Your task to perform on an android device: move an email to a new category in the gmail app Image 0: 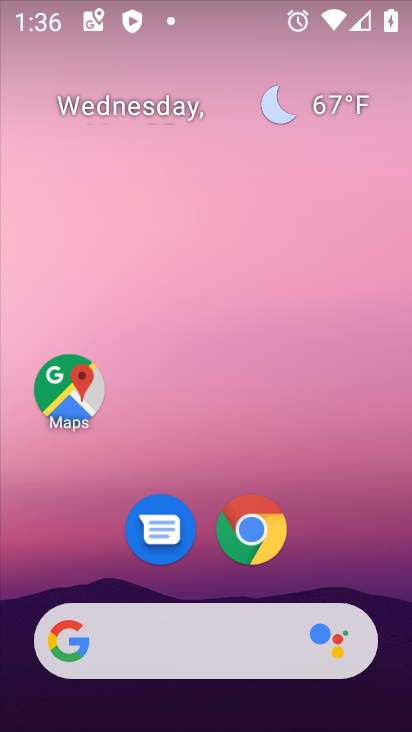
Step 0: drag from (328, 549) to (268, 194)
Your task to perform on an android device: move an email to a new category in the gmail app Image 1: 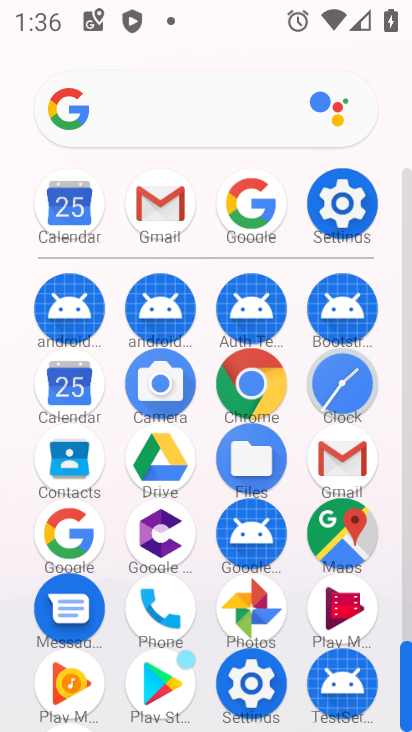
Step 1: click (161, 201)
Your task to perform on an android device: move an email to a new category in the gmail app Image 2: 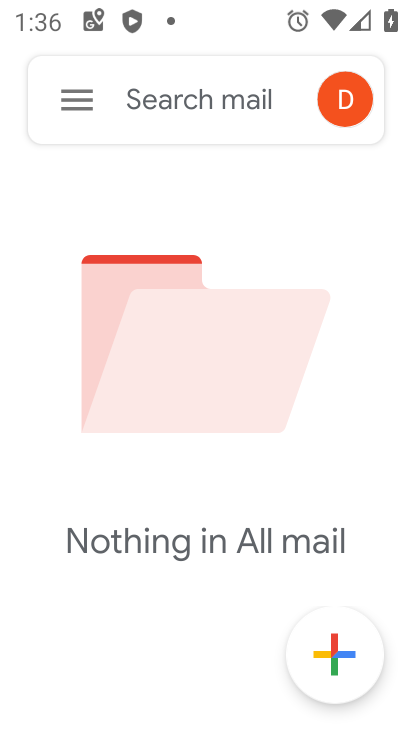
Step 2: click (70, 109)
Your task to perform on an android device: move an email to a new category in the gmail app Image 3: 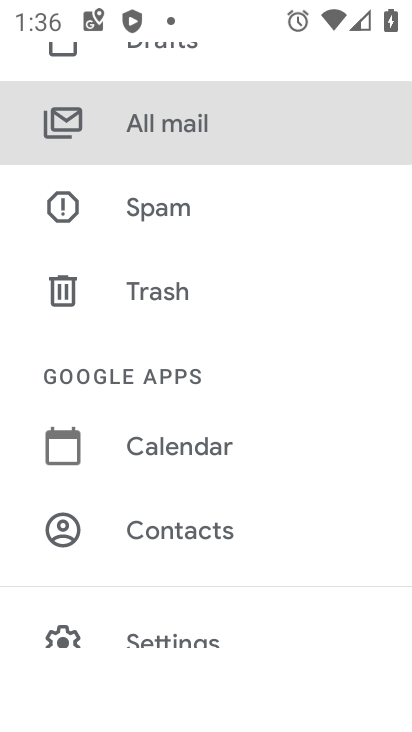
Step 3: drag from (163, 200) to (188, 380)
Your task to perform on an android device: move an email to a new category in the gmail app Image 4: 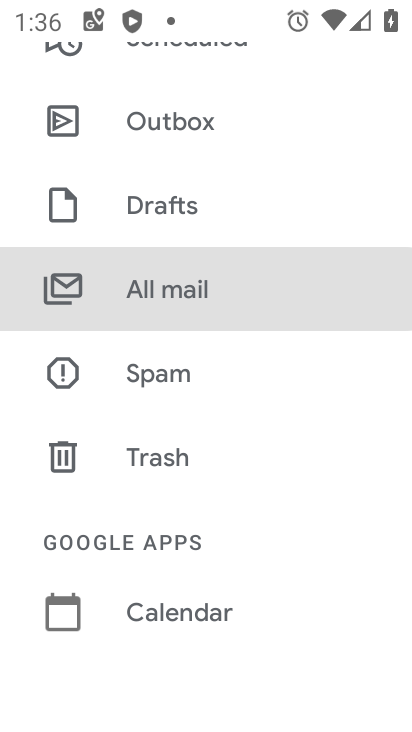
Step 4: click (178, 262)
Your task to perform on an android device: move an email to a new category in the gmail app Image 5: 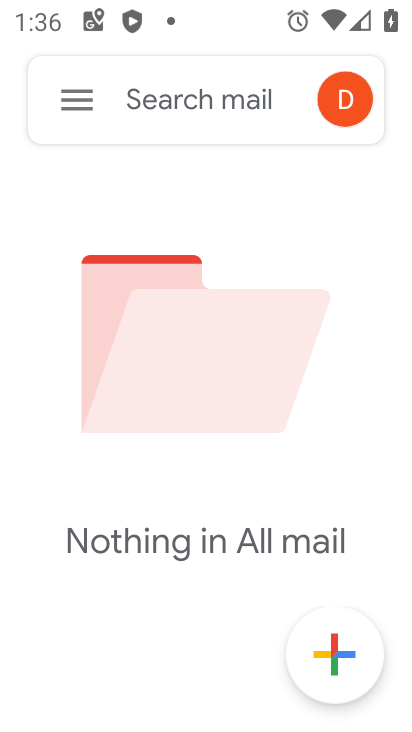
Step 5: click (67, 101)
Your task to perform on an android device: move an email to a new category in the gmail app Image 6: 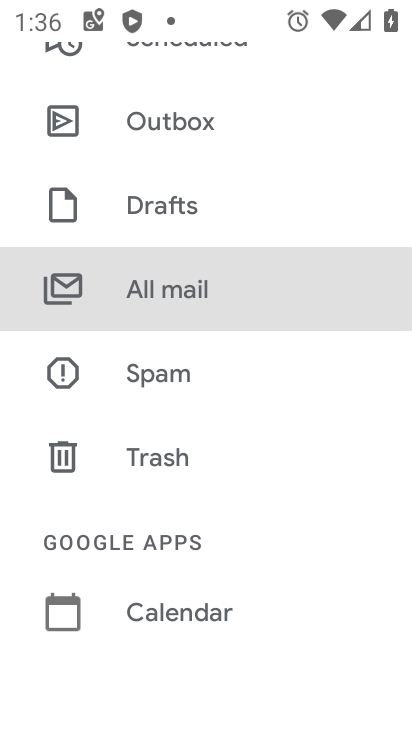
Step 6: drag from (153, 244) to (216, 383)
Your task to perform on an android device: move an email to a new category in the gmail app Image 7: 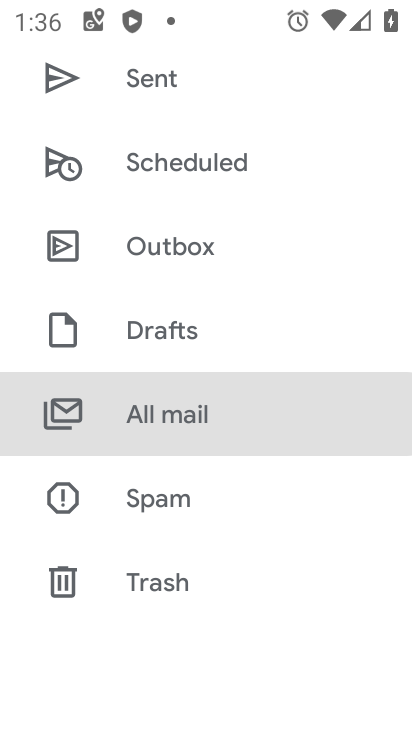
Step 7: click (162, 262)
Your task to perform on an android device: move an email to a new category in the gmail app Image 8: 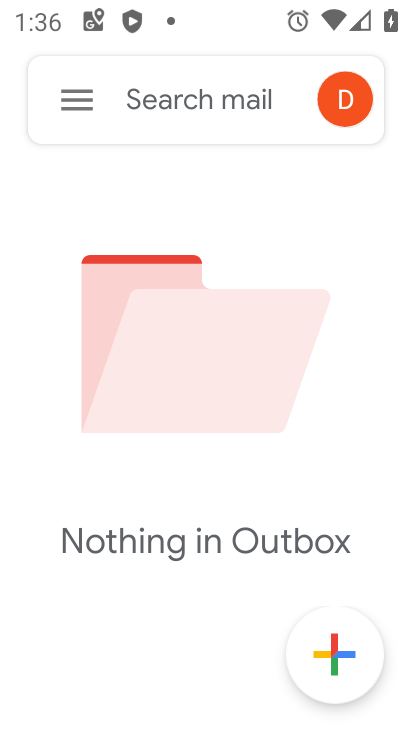
Step 8: click (46, 96)
Your task to perform on an android device: move an email to a new category in the gmail app Image 9: 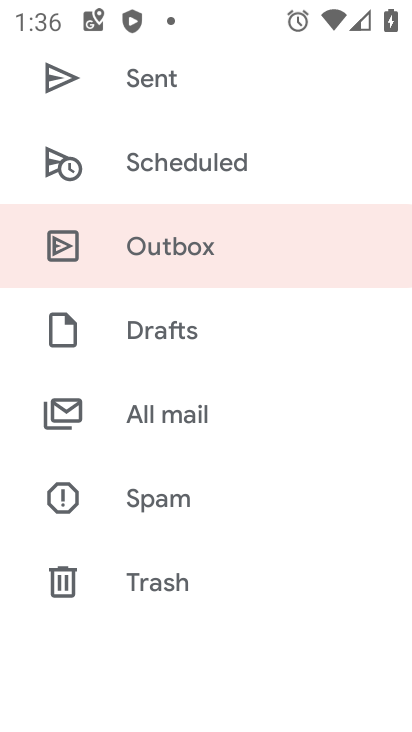
Step 9: click (191, 314)
Your task to perform on an android device: move an email to a new category in the gmail app Image 10: 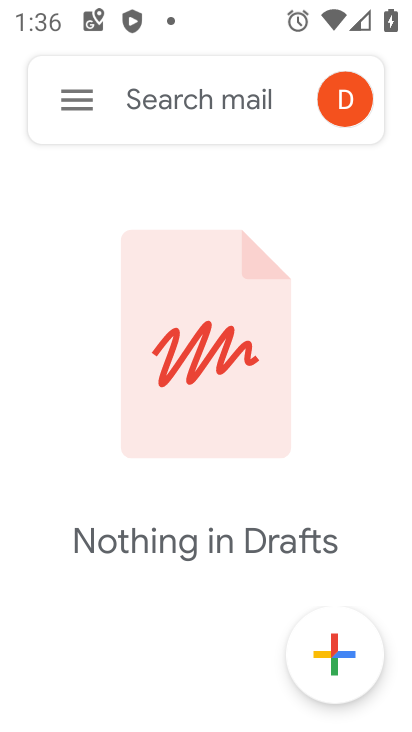
Step 10: click (66, 108)
Your task to perform on an android device: move an email to a new category in the gmail app Image 11: 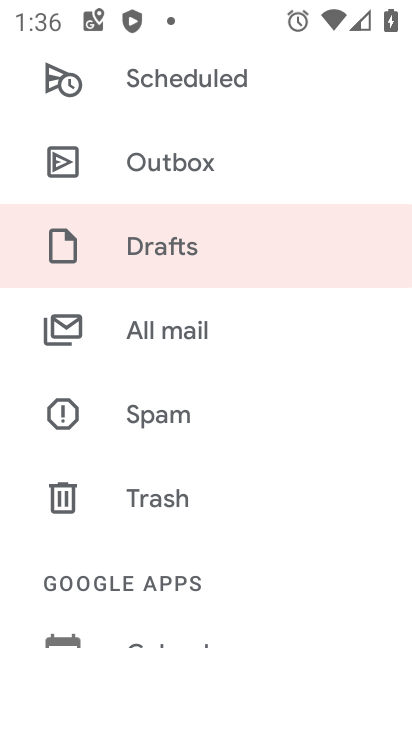
Step 11: drag from (133, 207) to (196, 351)
Your task to perform on an android device: move an email to a new category in the gmail app Image 12: 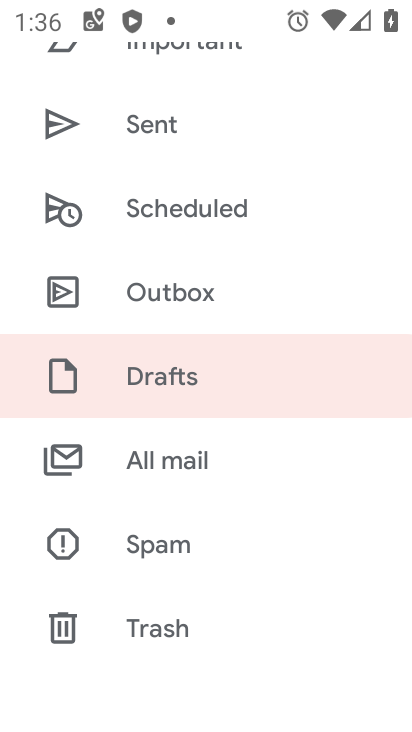
Step 12: click (179, 227)
Your task to perform on an android device: move an email to a new category in the gmail app Image 13: 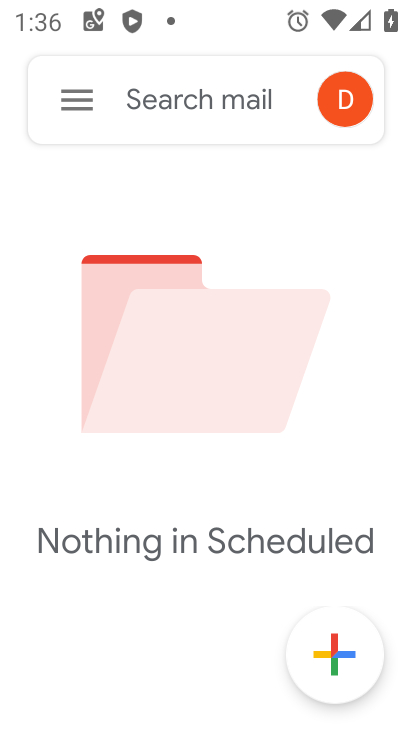
Step 13: click (74, 105)
Your task to perform on an android device: move an email to a new category in the gmail app Image 14: 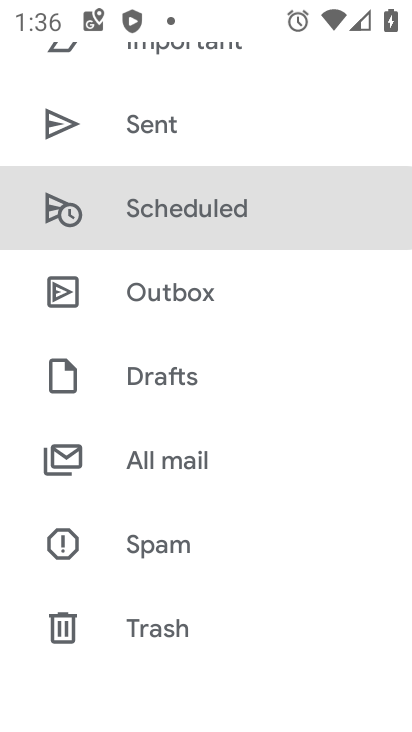
Step 14: drag from (147, 182) to (231, 322)
Your task to perform on an android device: move an email to a new category in the gmail app Image 15: 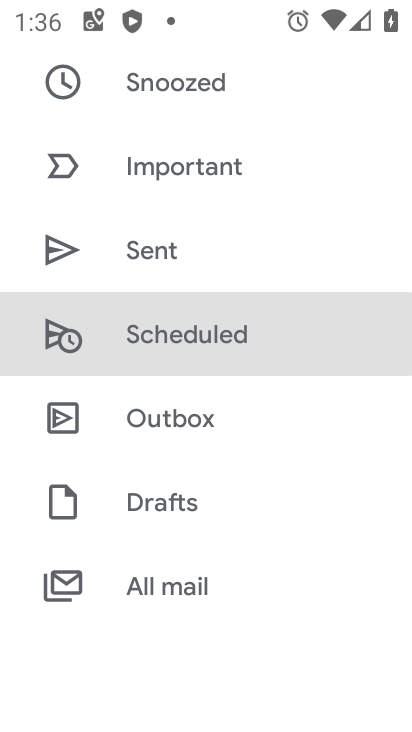
Step 15: click (161, 244)
Your task to perform on an android device: move an email to a new category in the gmail app Image 16: 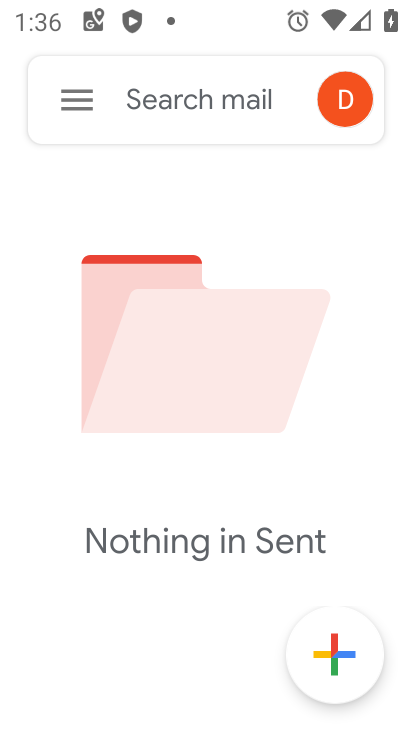
Step 16: click (92, 103)
Your task to perform on an android device: move an email to a new category in the gmail app Image 17: 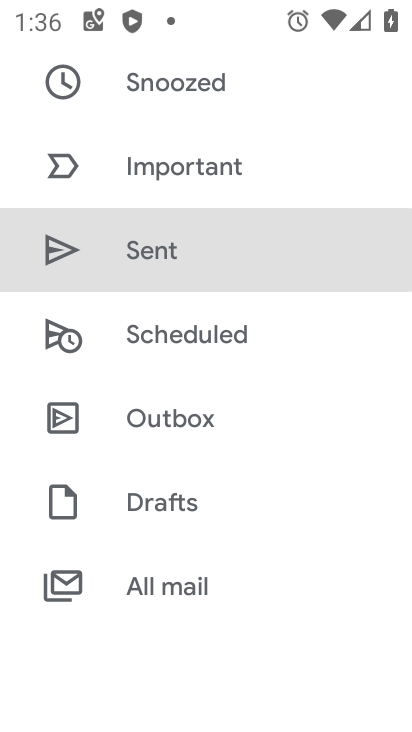
Step 17: drag from (134, 167) to (186, 348)
Your task to perform on an android device: move an email to a new category in the gmail app Image 18: 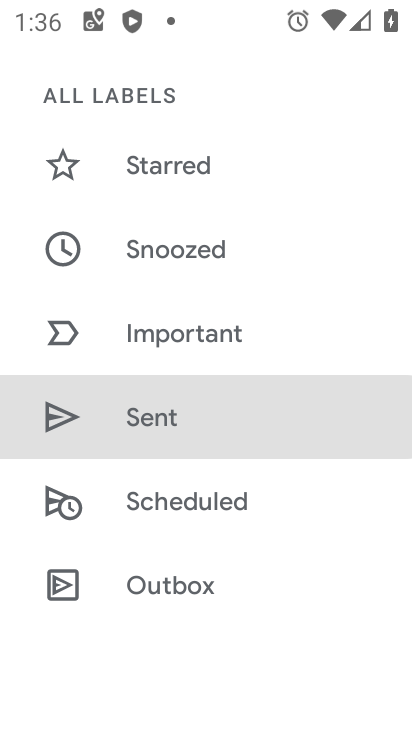
Step 18: click (175, 325)
Your task to perform on an android device: move an email to a new category in the gmail app Image 19: 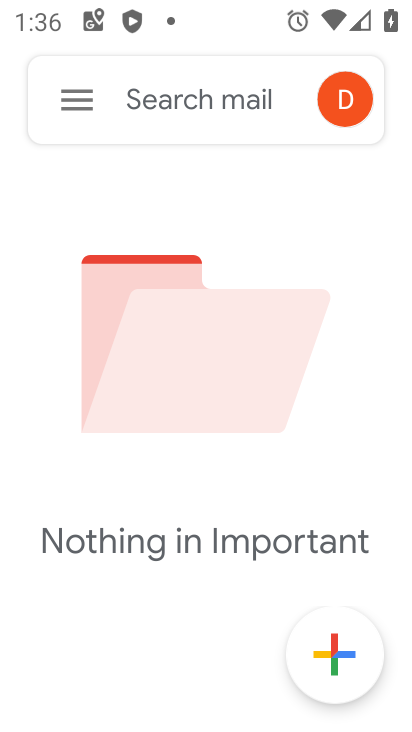
Step 19: click (71, 106)
Your task to perform on an android device: move an email to a new category in the gmail app Image 20: 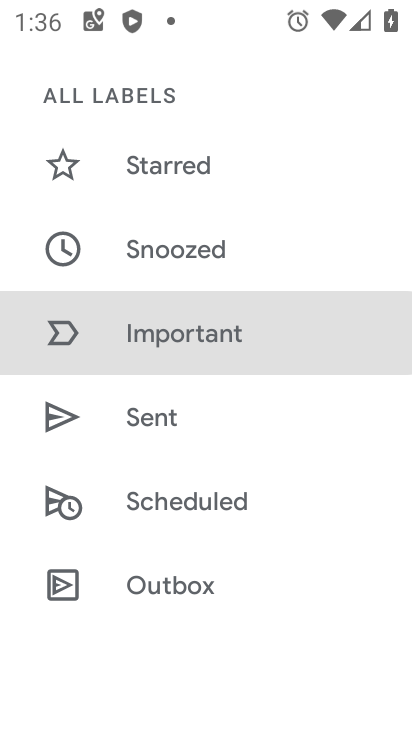
Step 20: click (175, 233)
Your task to perform on an android device: move an email to a new category in the gmail app Image 21: 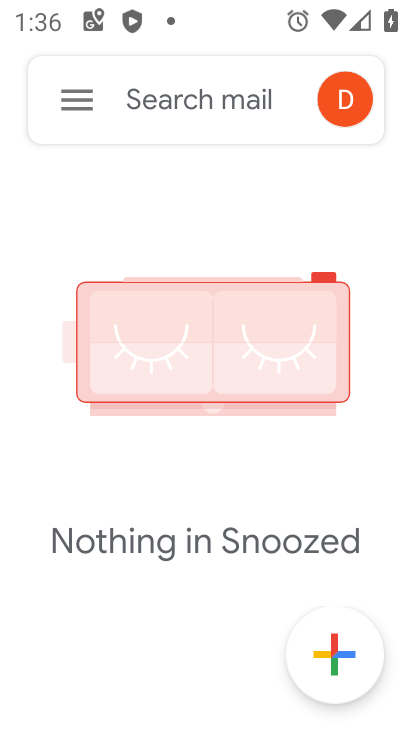
Step 21: click (75, 82)
Your task to perform on an android device: move an email to a new category in the gmail app Image 22: 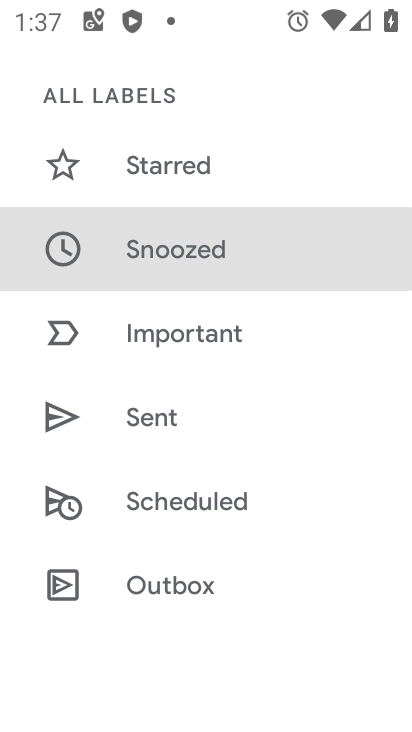
Step 22: drag from (273, 318) to (244, 557)
Your task to perform on an android device: move an email to a new category in the gmail app Image 23: 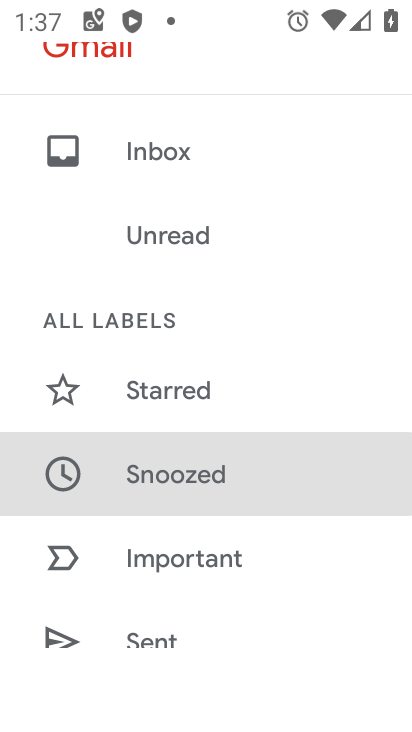
Step 23: click (161, 156)
Your task to perform on an android device: move an email to a new category in the gmail app Image 24: 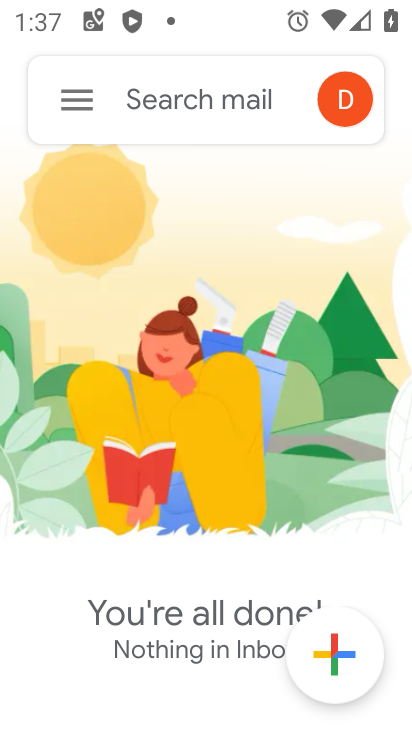
Step 24: task complete